Your task to perform on an android device: Turn on the flashlight Image 0: 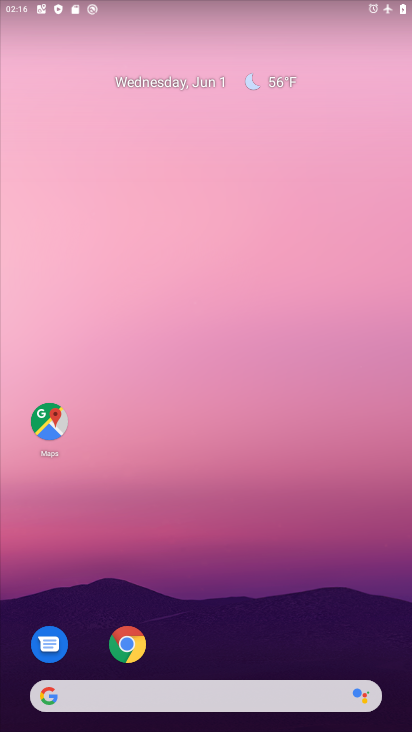
Step 0: drag from (288, 9) to (308, 445)
Your task to perform on an android device: Turn on the flashlight Image 1: 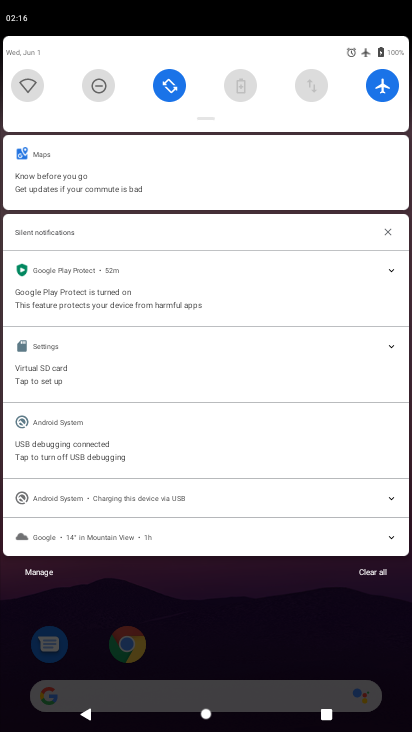
Step 1: drag from (115, 84) to (121, 490)
Your task to perform on an android device: Turn on the flashlight Image 2: 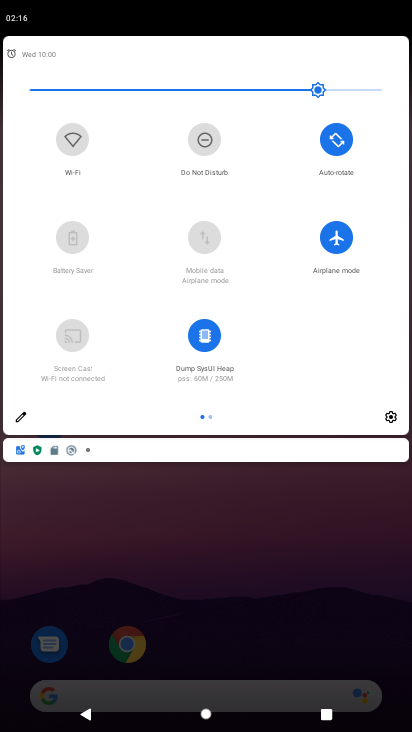
Step 2: drag from (315, 327) to (31, 415)
Your task to perform on an android device: Turn on the flashlight Image 3: 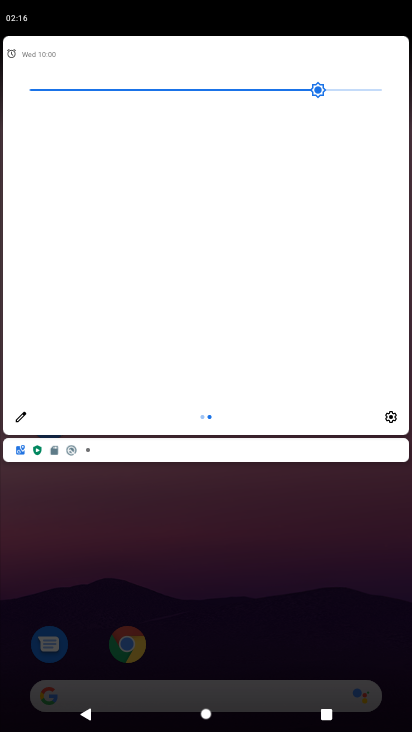
Step 3: click (21, 407)
Your task to perform on an android device: Turn on the flashlight Image 4: 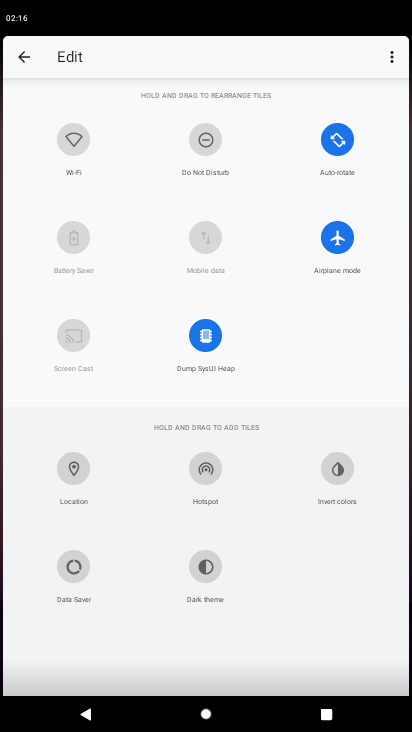
Step 4: task complete